Your task to perform on an android device: Open location settings Image 0: 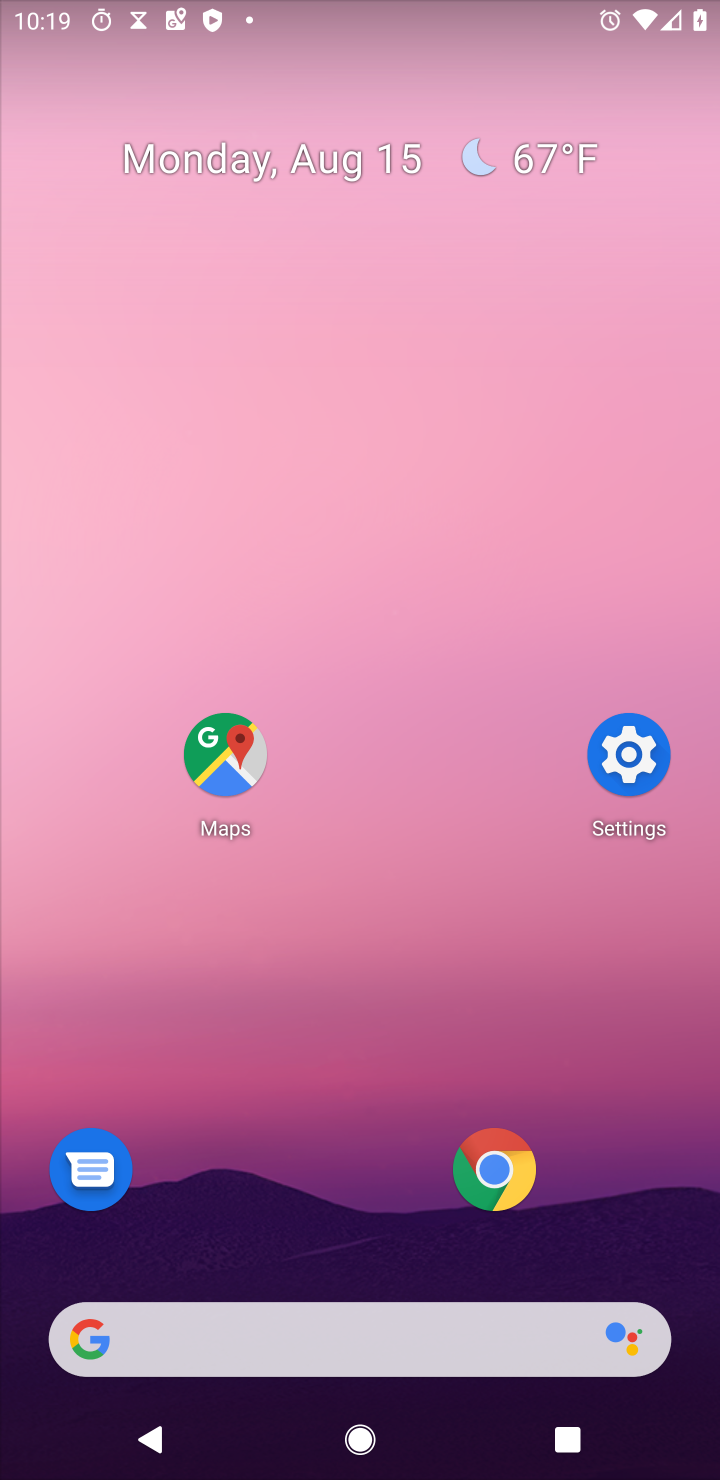
Step 0: press home button
Your task to perform on an android device: Open location settings Image 1: 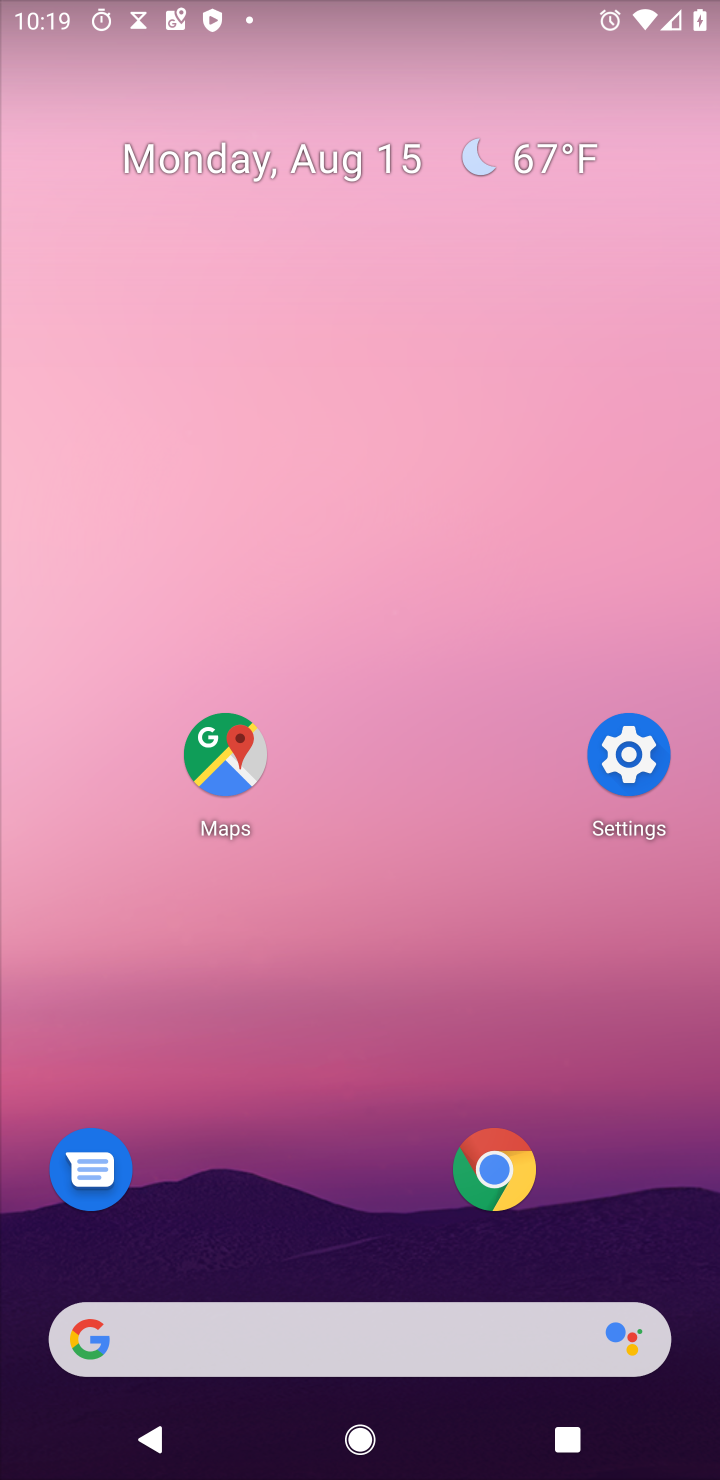
Step 1: click (620, 747)
Your task to perform on an android device: Open location settings Image 2: 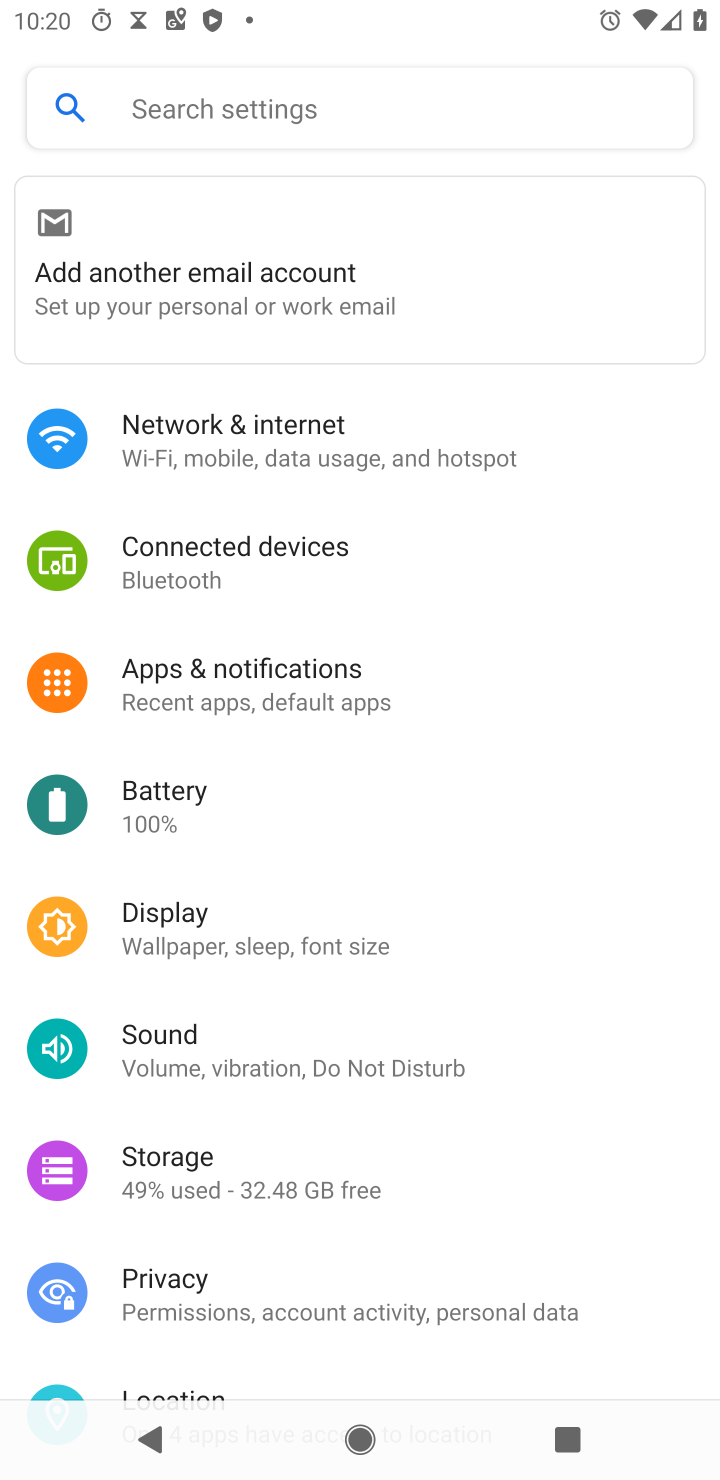
Step 2: drag from (448, 1226) to (543, 250)
Your task to perform on an android device: Open location settings Image 3: 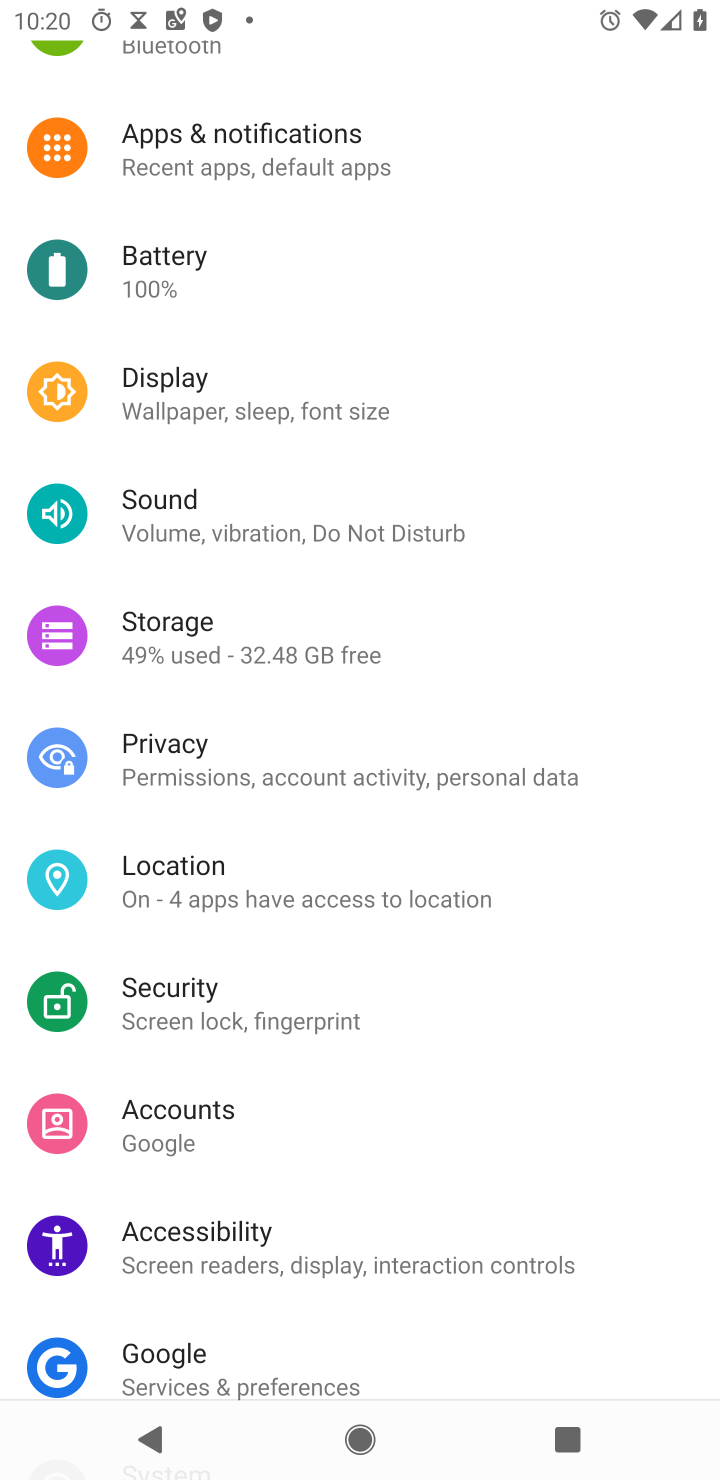
Step 3: click (228, 884)
Your task to perform on an android device: Open location settings Image 4: 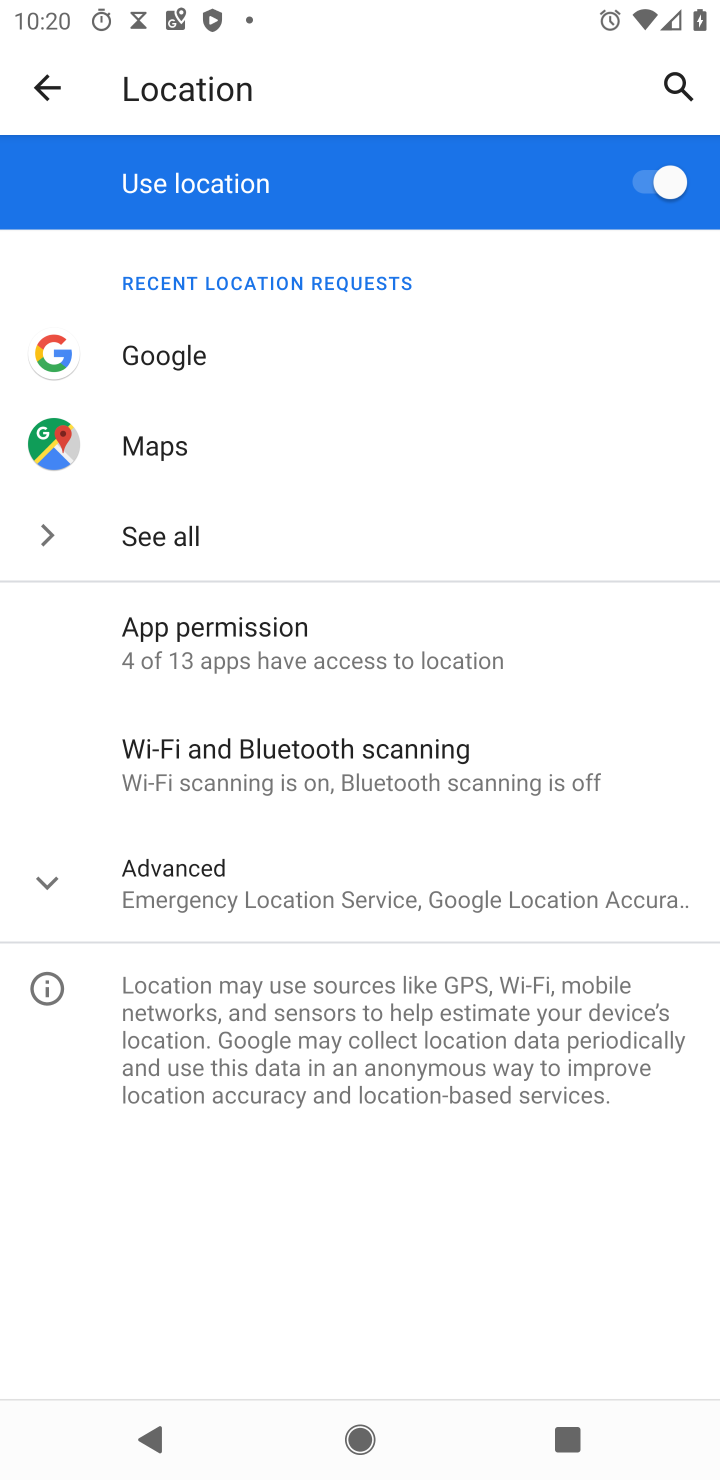
Step 4: click (259, 891)
Your task to perform on an android device: Open location settings Image 5: 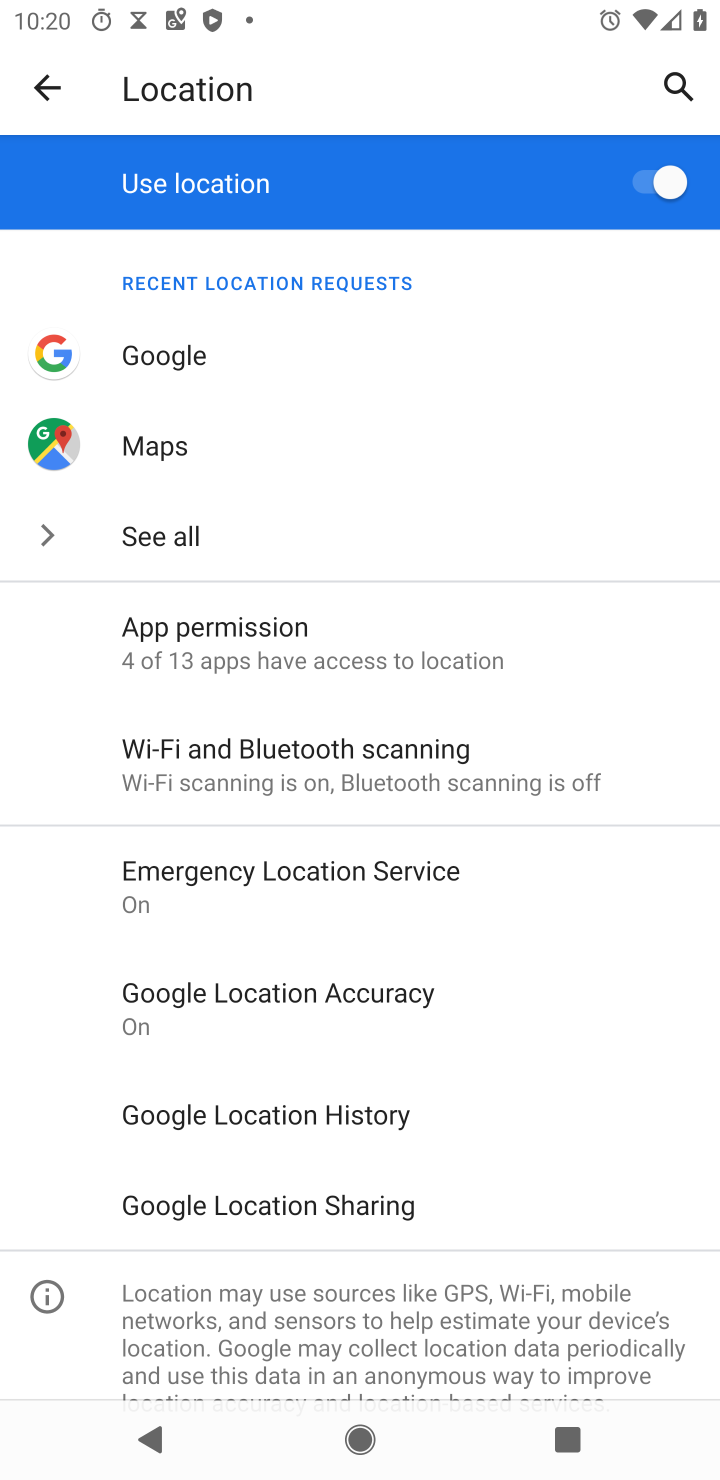
Step 5: task complete